Your task to perform on an android device: Open Google Chrome and click the shortcut for Amazon.com Image 0: 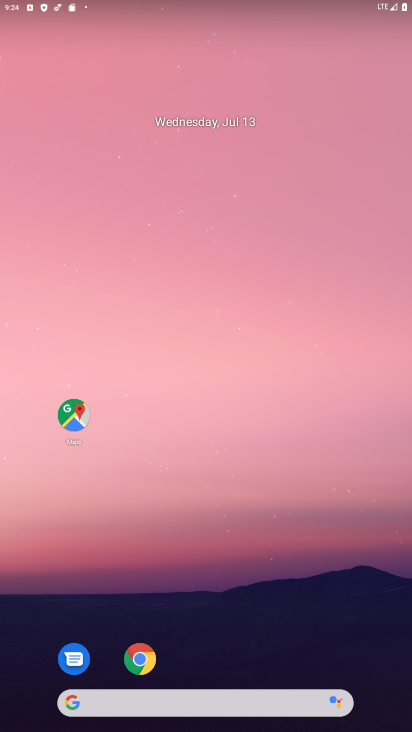
Step 0: click (138, 662)
Your task to perform on an android device: Open Google Chrome and click the shortcut for Amazon.com Image 1: 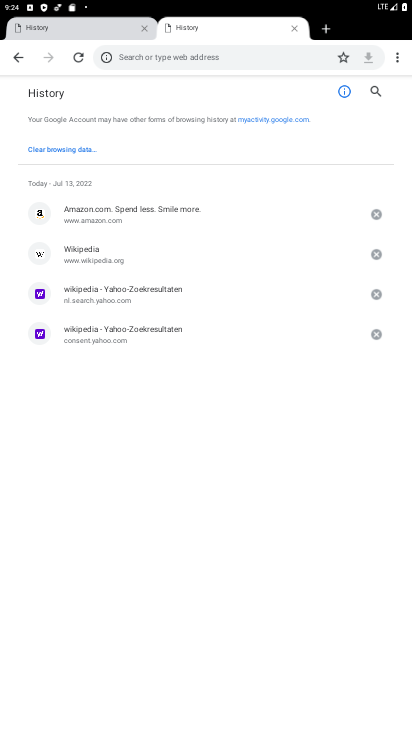
Step 1: click (20, 56)
Your task to perform on an android device: Open Google Chrome and click the shortcut for Amazon.com Image 2: 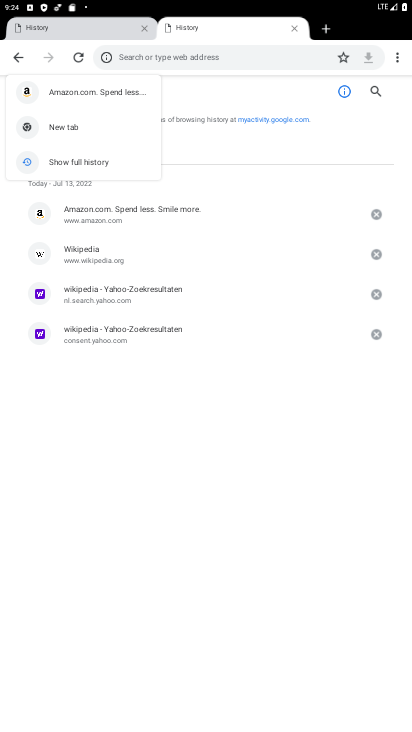
Step 2: click (14, 57)
Your task to perform on an android device: Open Google Chrome and click the shortcut for Amazon.com Image 3: 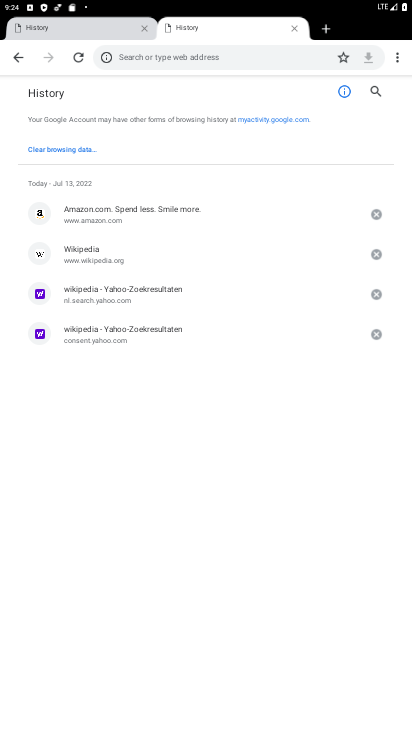
Step 3: click (14, 57)
Your task to perform on an android device: Open Google Chrome and click the shortcut for Amazon.com Image 4: 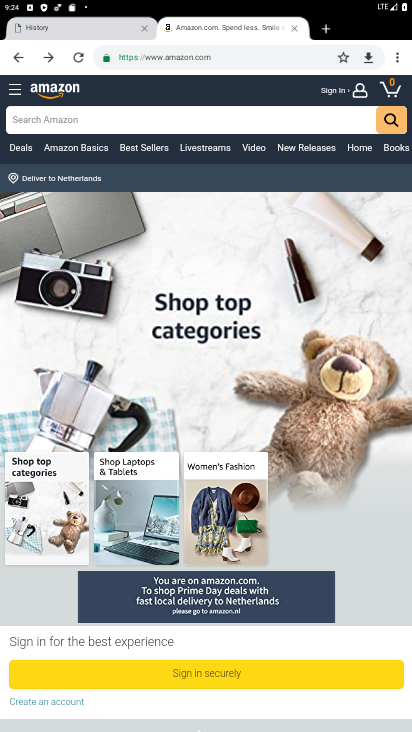
Step 4: click (323, 33)
Your task to perform on an android device: Open Google Chrome and click the shortcut for Amazon.com Image 5: 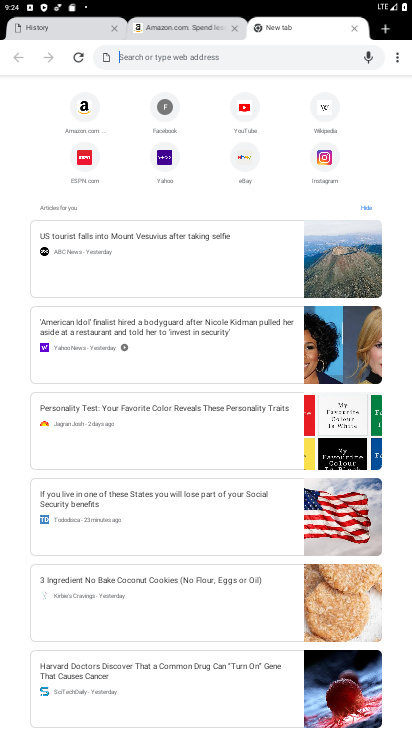
Step 5: click (85, 109)
Your task to perform on an android device: Open Google Chrome and click the shortcut for Amazon.com Image 6: 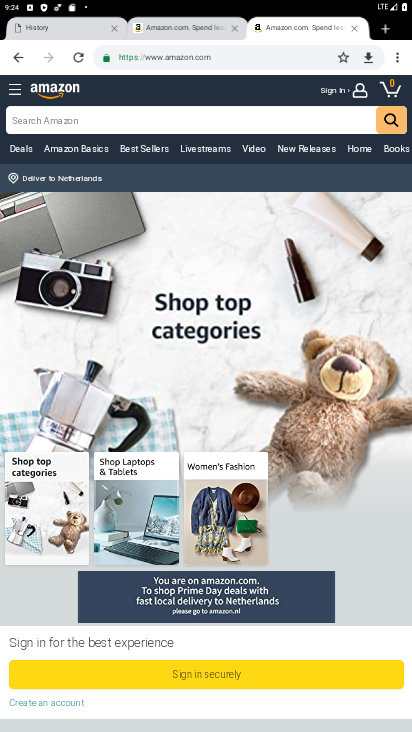
Step 6: task complete